Your task to perform on an android device: see sites visited before in the chrome app Image 0: 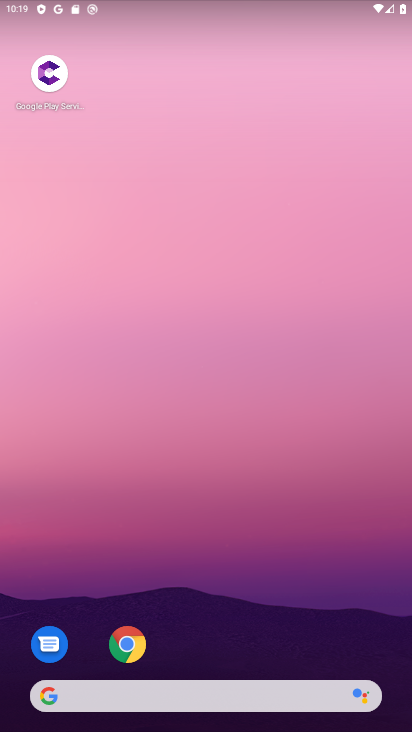
Step 0: press home button
Your task to perform on an android device: see sites visited before in the chrome app Image 1: 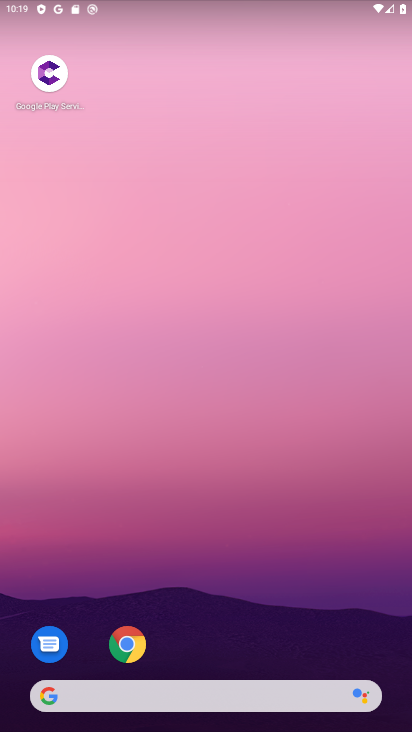
Step 1: click (126, 640)
Your task to perform on an android device: see sites visited before in the chrome app Image 2: 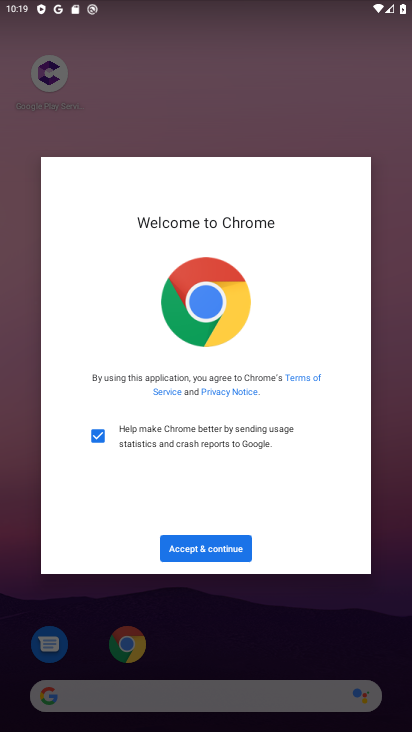
Step 2: click (211, 551)
Your task to perform on an android device: see sites visited before in the chrome app Image 3: 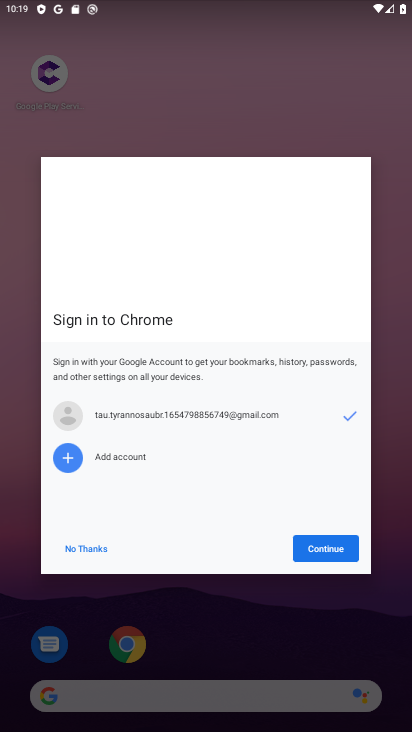
Step 3: click (321, 548)
Your task to perform on an android device: see sites visited before in the chrome app Image 4: 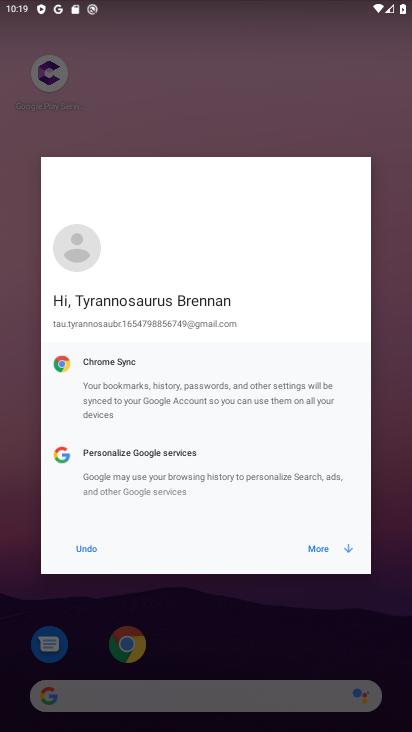
Step 4: click (321, 548)
Your task to perform on an android device: see sites visited before in the chrome app Image 5: 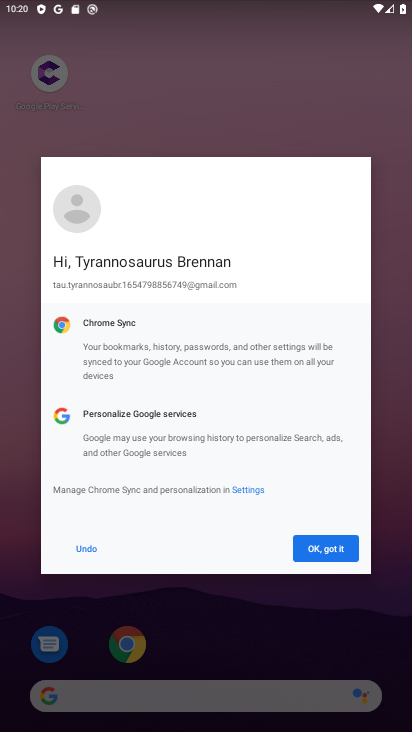
Step 5: click (325, 538)
Your task to perform on an android device: see sites visited before in the chrome app Image 6: 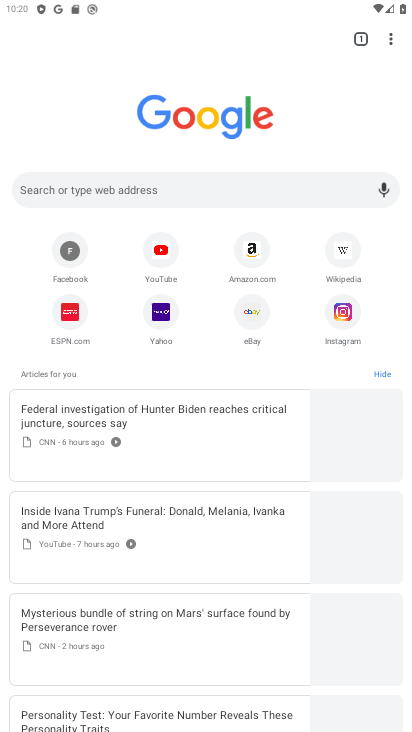
Step 6: click (385, 37)
Your task to perform on an android device: see sites visited before in the chrome app Image 7: 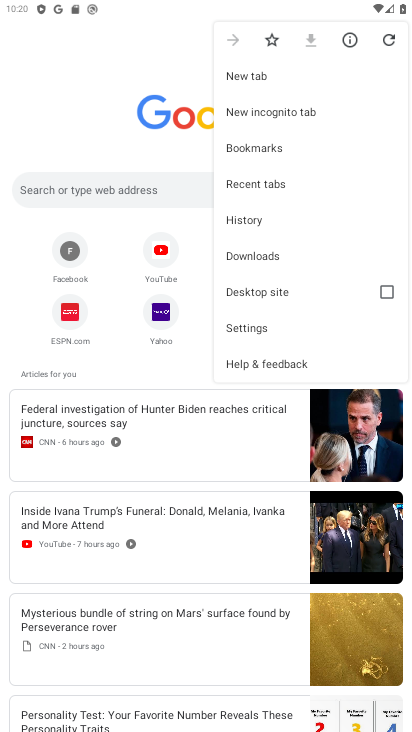
Step 7: click (268, 217)
Your task to perform on an android device: see sites visited before in the chrome app Image 8: 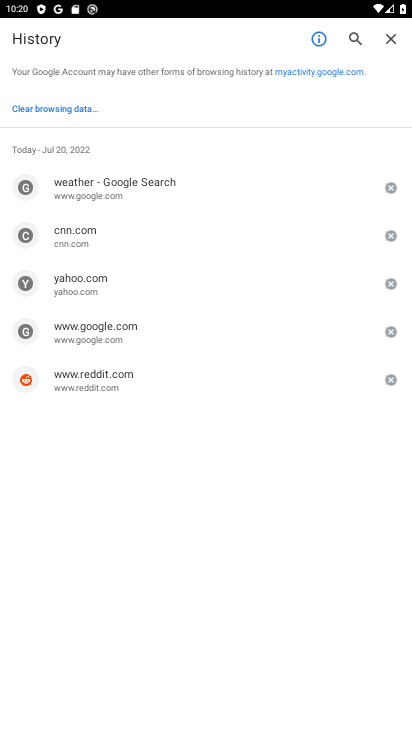
Step 8: task complete